Your task to perform on an android device: read, delete, or share a saved page in the chrome app Image 0: 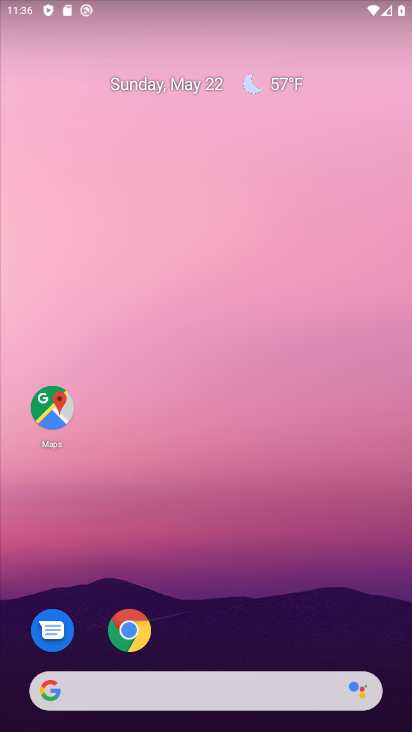
Step 0: click (144, 629)
Your task to perform on an android device: read, delete, or share a saved page in the chrome app Image 1: 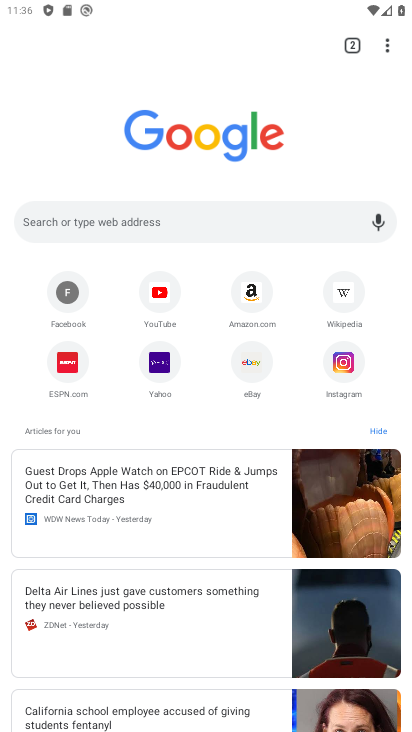
Step 1: click (386, 53)
Your task to perform on an android device: read, delete, or share a saved page in the chrome app Image 2: 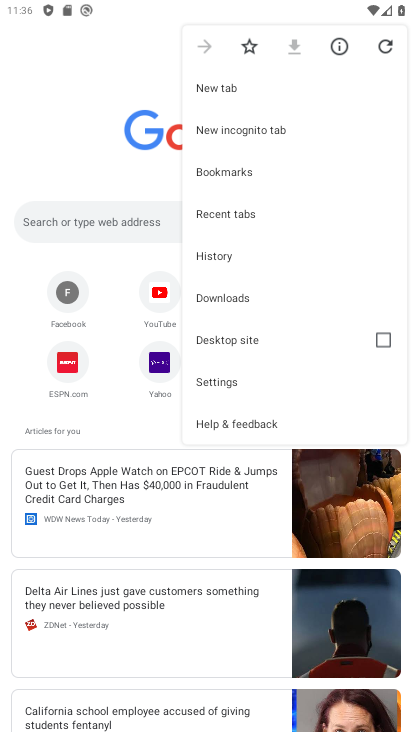
Step 2: click (248, 307)
Your task to perform on an android device: read, delete, or share a saved page in the chrome app Image 3: 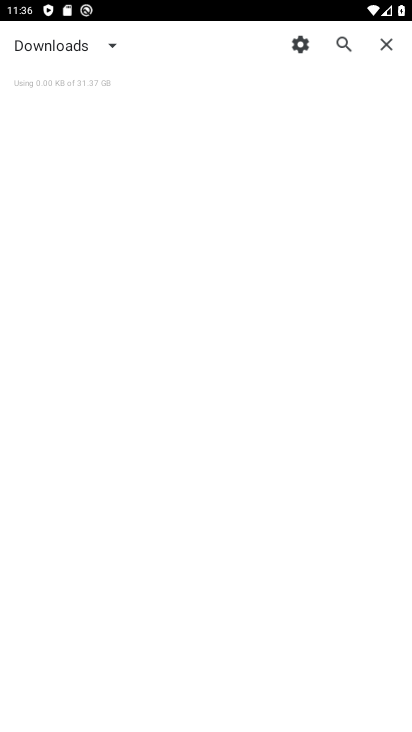
Step 3: click (69, 52)
Your task to perform on an android device: read, delete, or share a saved page in the chrome app Image 4: 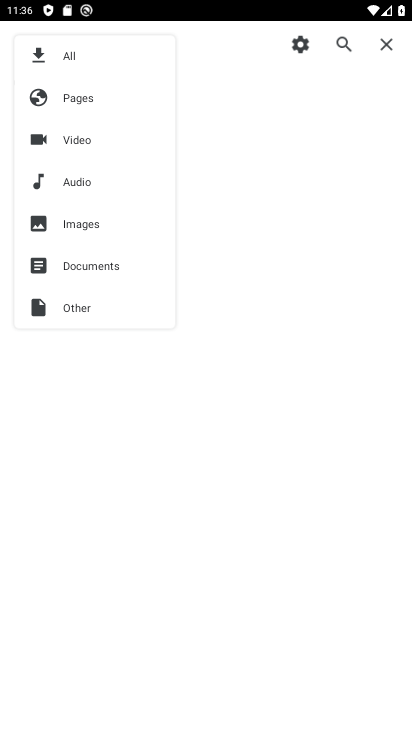
Step 4: click (85, 106)
Your task to perform on an android device: read, delete, or share a saved page in the chrome app Image 5: 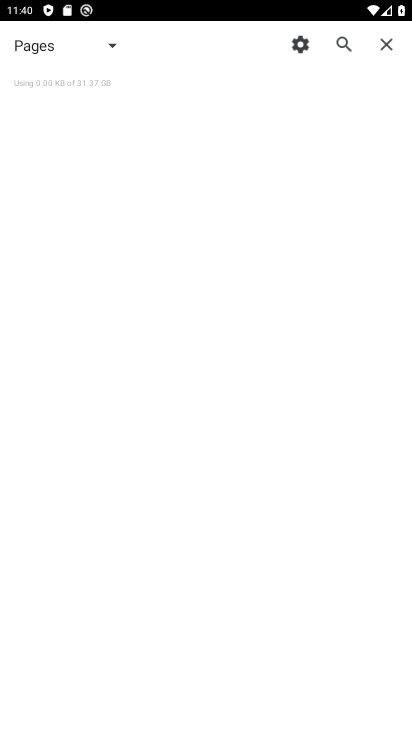
Step 5: task complete